Your task to perform on an android device: Show me productivity apps on the Play Store Image 0: 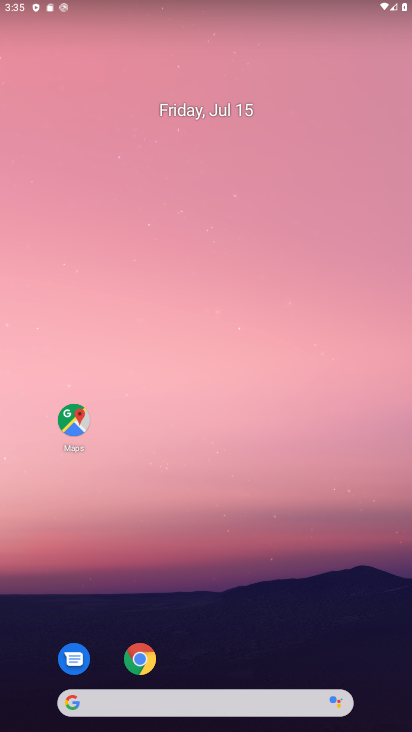
Step 0: drag from (196, 645) to (203, 254)
Your task to perform on an android device: Show me productivity apps on the Play Store Image 1: 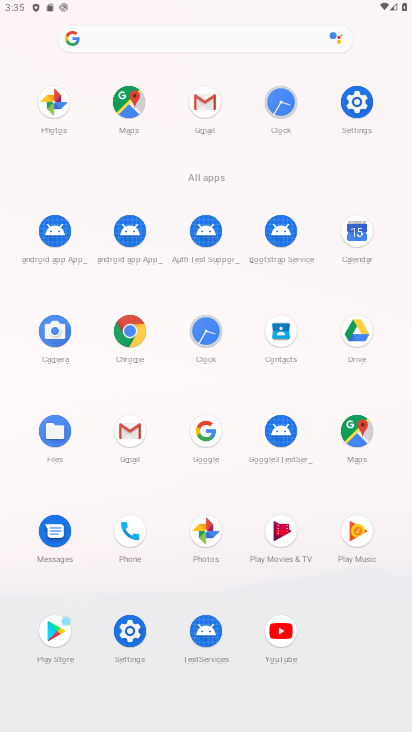
Step 1: click (46, 654)
Your task to perform on an android device: Show me productivity apps on the Play Store Image 2: 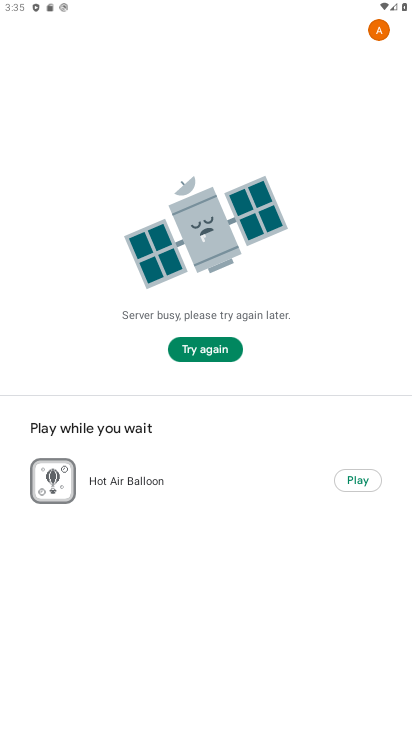
Step 2: task complete